Your task to perform on an android device: Do I have any events today? Image 0: 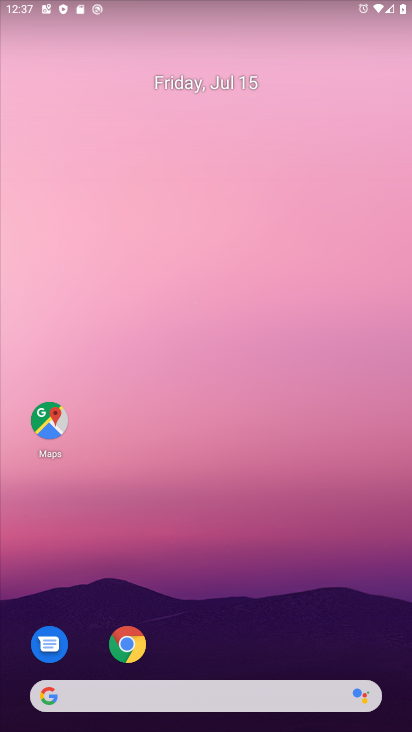
Step 0: drag from (383, 615) to (260, 41)
Your task to perform on an android device: Do I have any events today? Image 1: 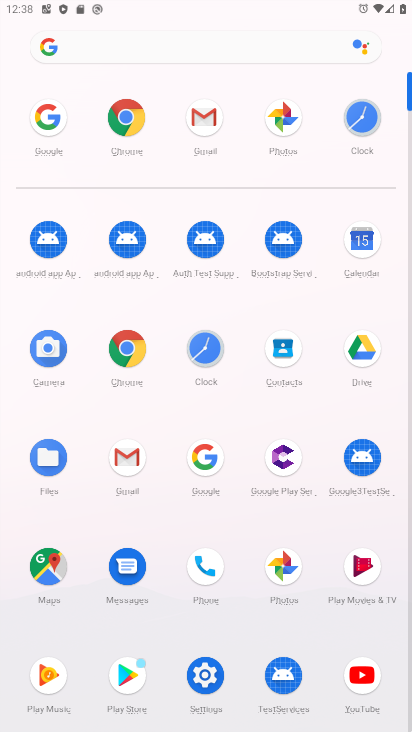
Step 1: click (347, 239)
Your task to perform on an android device: Do I have any events today? Image 2: 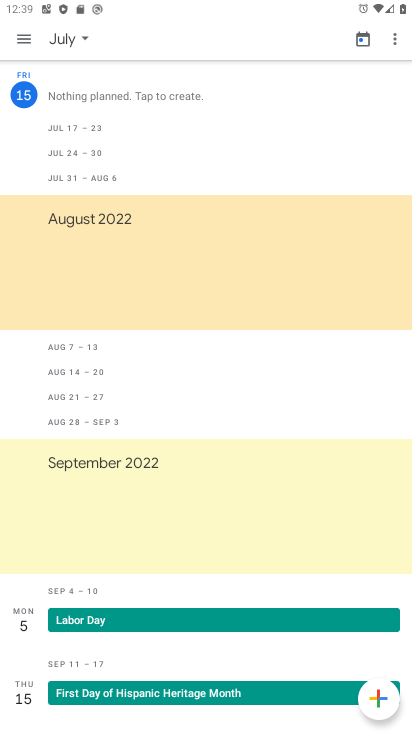
Step 2: task complete